Your task to perform on an android device: Do I have any events today? Image 0: 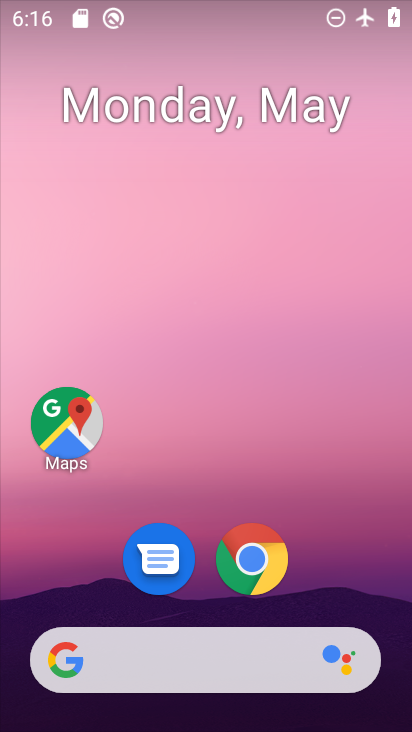
Step 0: drag from (331, 578) to (268, 86)
Your task to perform on an android device: Do I have any events today? Image 1: 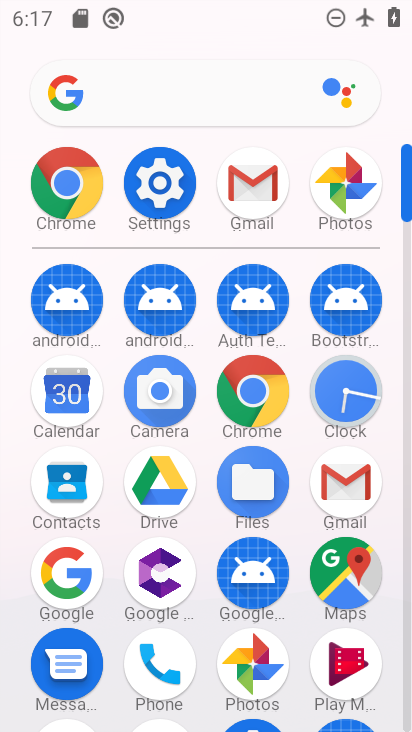
Step 1: click (66, 386)
Your task to perform on an android device: Do I have any events today? Image 2: 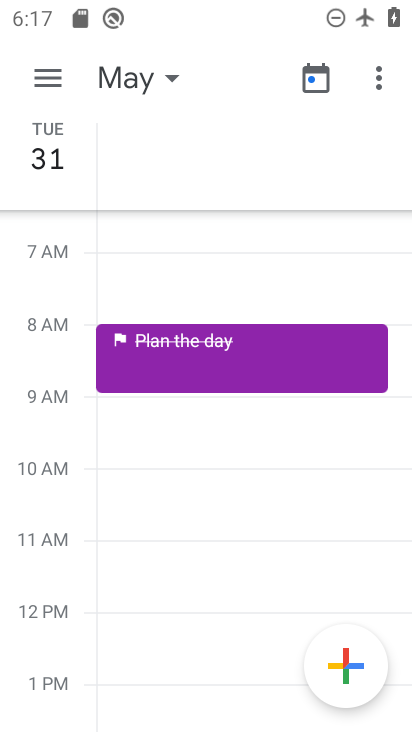
Step 2: click (163, 73)
Your task to perform on an android device: Do I have any events today? Image 3: 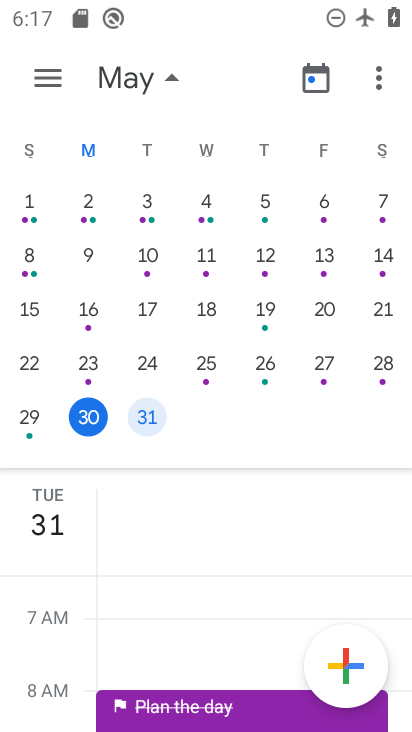
Step 3: click (95, 414)
Your task to perform on an android device: Do I have any events today? Image 4: 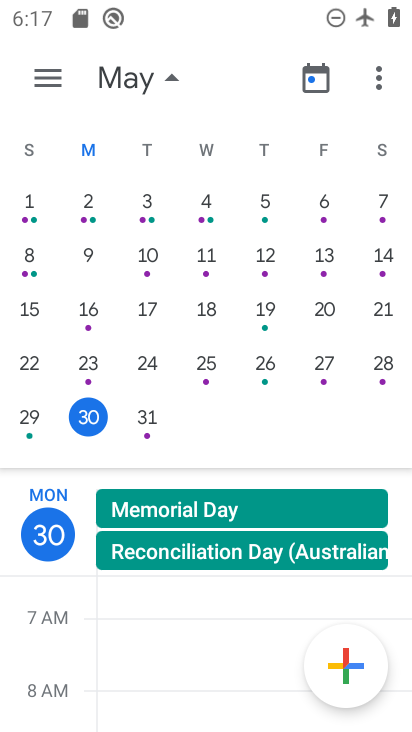
Step 4: task complete